Your task to perform on an android device: turn notification dots on Image 0: 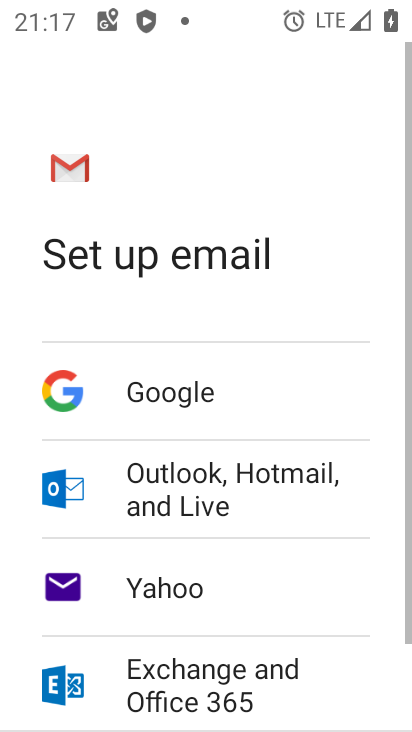
Step 0: press home button
Your task to perform on an android device: turn notification dots on Image 1: 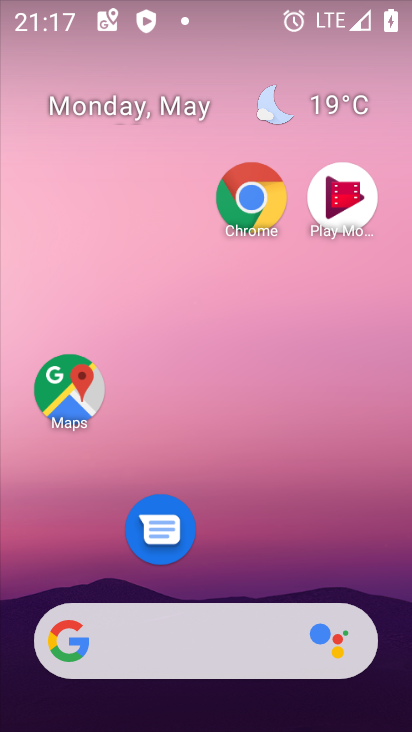
Step 1: drag from (229, 583) to (245, 42)
Your task to perform on an android device: turn notification dots on Image 2: 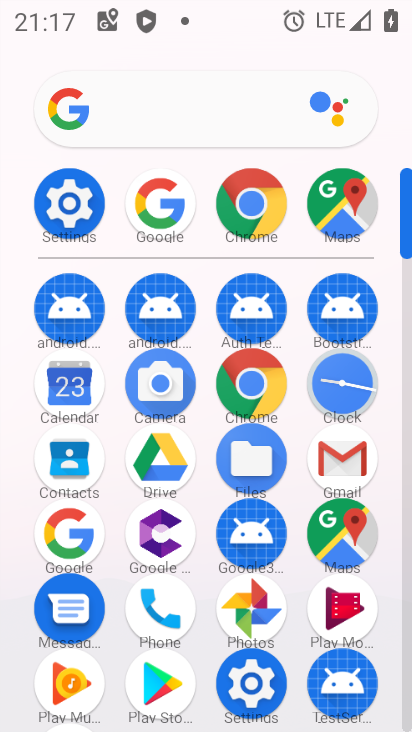
Step 2: click (65, 205)
Your task to perform on an android device: turn notification dots on Image 3: 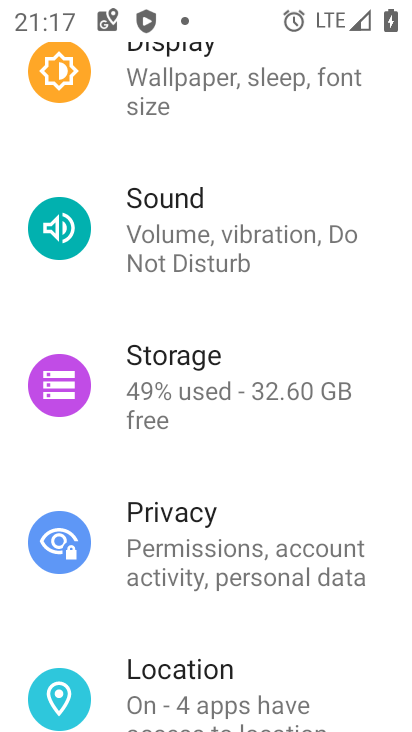
Step 3: drag from (184, 628) to (187, 207)
Your task to perform on an android device: turn notification dots on Image 4: 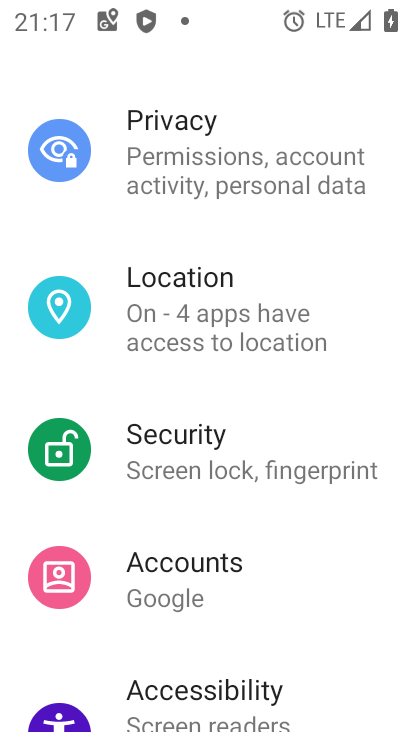
Step 4: click (190, 332)
Your task to perform on an android device: turn notification dots on Image 5: 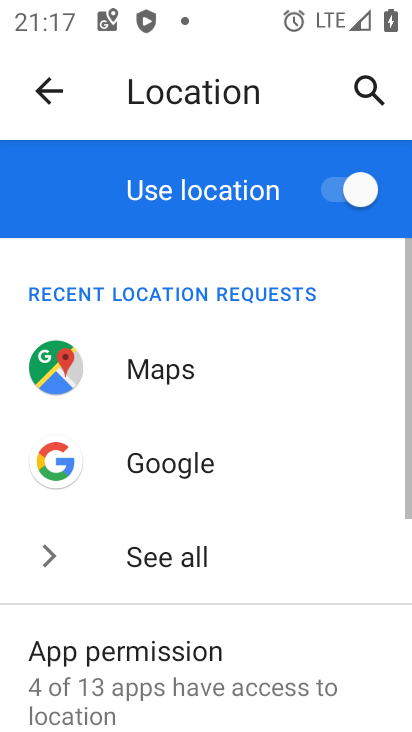
Step 5: drag from (150, 679) to (199, 390)
Your task to perform on an android device: turn notification dots on Image 6: 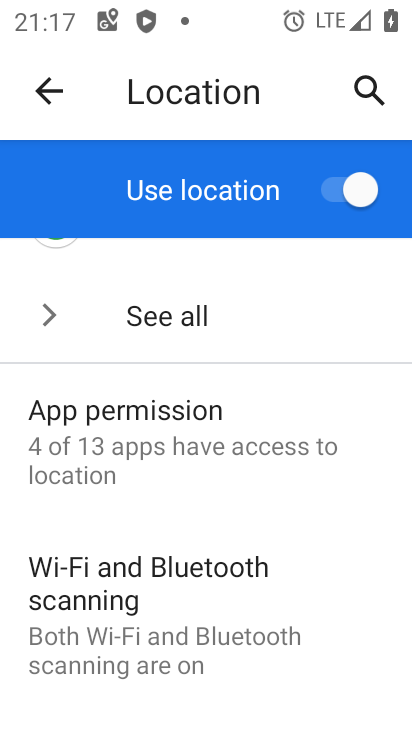
Step 6: click (164, 633)
Your task to perform on an android device: turn notification dots on Image 7: 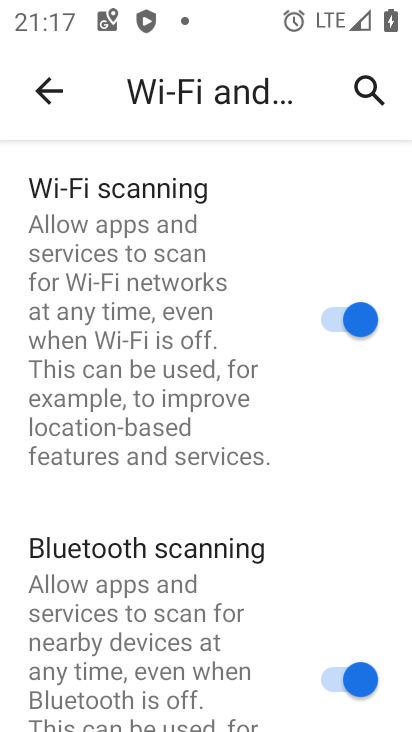
Step 7: task complete